Your task to perform on an android device: turn off notifications settings in the gmail app Image 0: 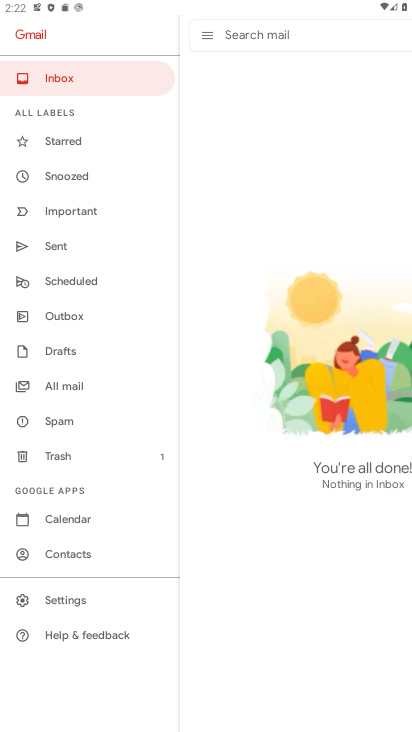
Step 0: click (39, 587)
Your task to perform on an android device: turn off notifications settings in the gmail app Image 1: 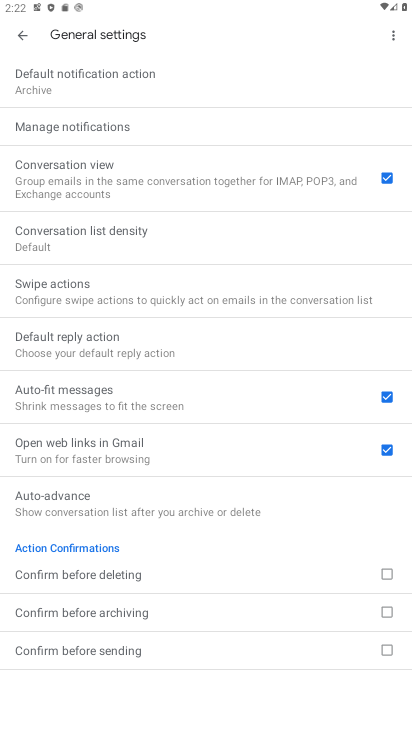
Step 1: click (157, 130)
Your task to perform on an android device: turn off notifications settings in the gmail app Image 2: 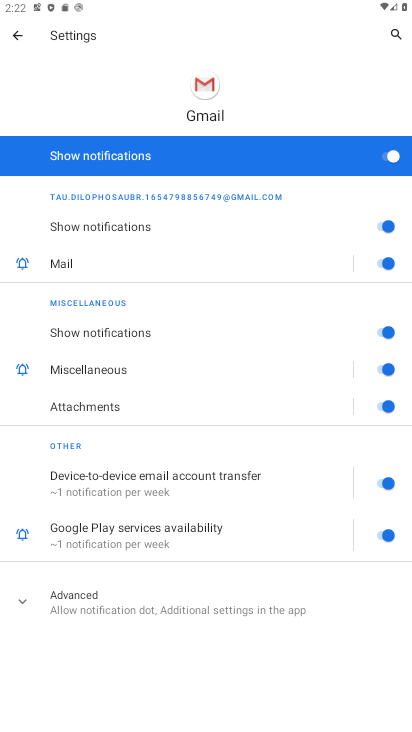
Step 2: click (380, 158)
Your task to perform on an android device: turn off notifications settings in the gmail app Image 3: 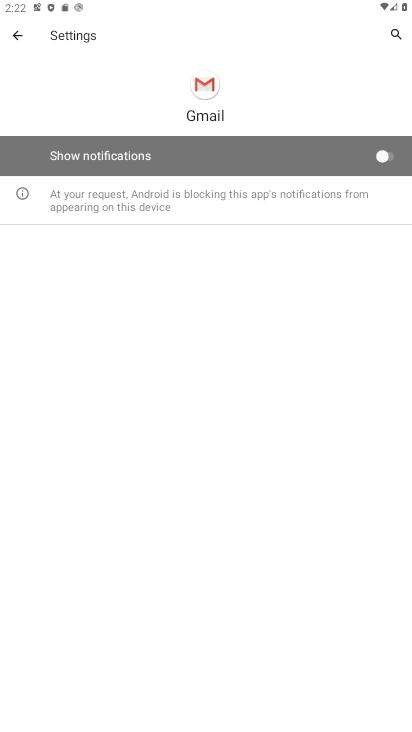
Step 3: task complete